Your task to perform on an android device: turn on the 12-hour format for clock Image 0: 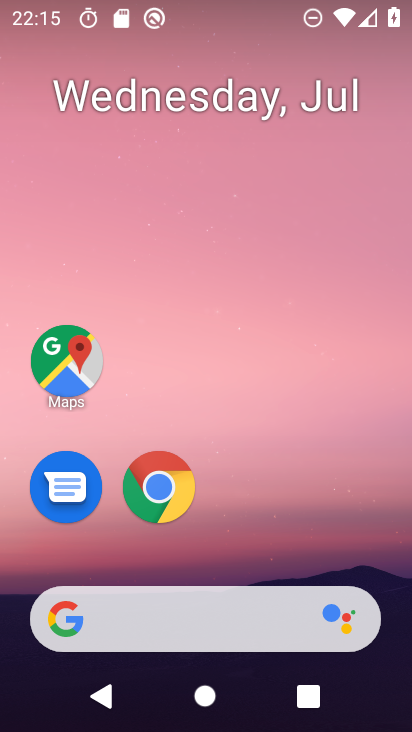
Step 0: drag from (366, 521) to (385, 130)
Your task to perform on an android device: turn on the 12-hour format for clock Image 1: 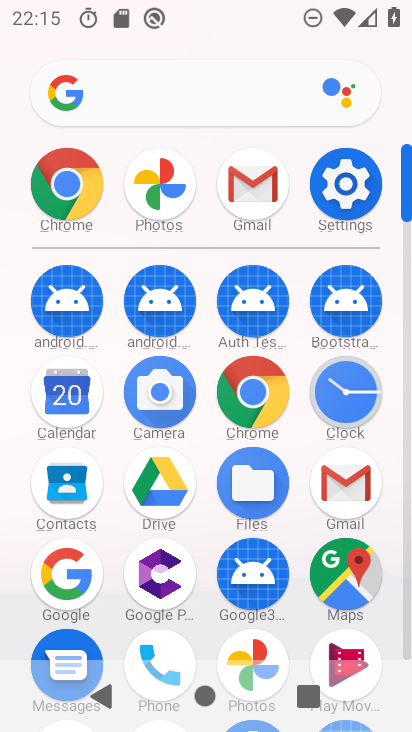
Step 1: click (354, 395)
Your task to perform on an android device: turn on the 12-hour format for clock Image 2: 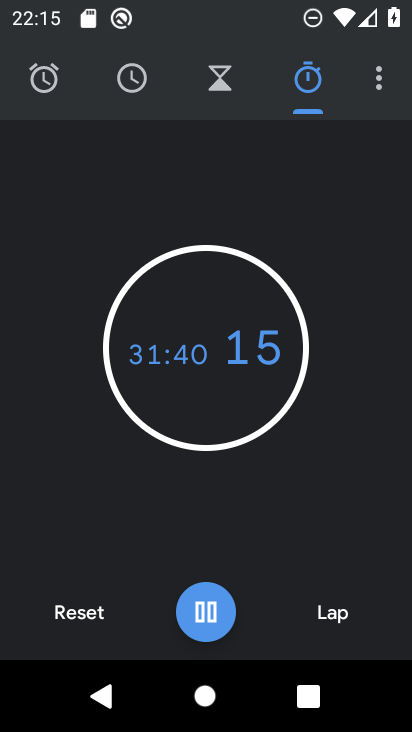
Step 2: click (374, 81)
Your task to perform on an android device: turn on the 12-hour format for clock Image 3: 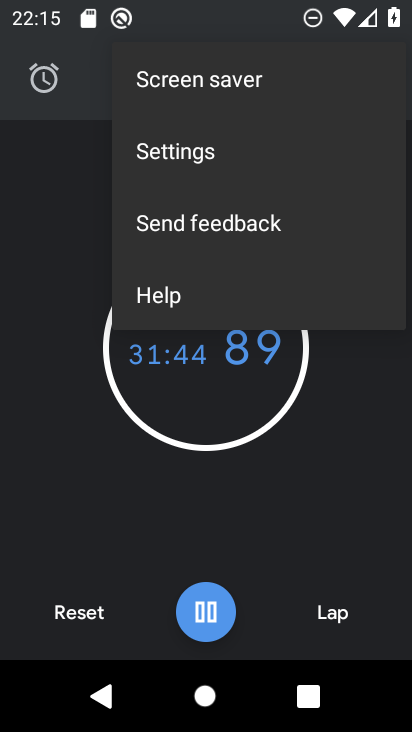
Step 3: click (240, 159)
Your task to perform on an android device: turn on the 12-hour format for clock Image 4: 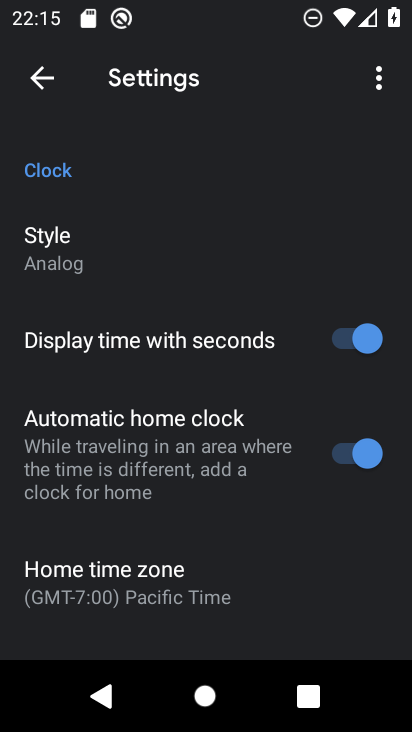
Step 4: drag from (286, 470) to (302, 407)
Your task to perform on an android device: turn on the 12-hour format for clock Image 5: 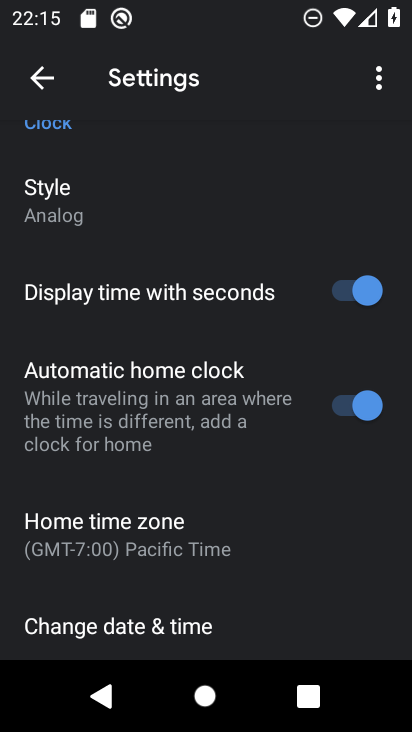
Step 5: drag from (288, 494) to (290, 420)
Your task to perform on an android device: turn on the 12-hour format for clock Image 6: 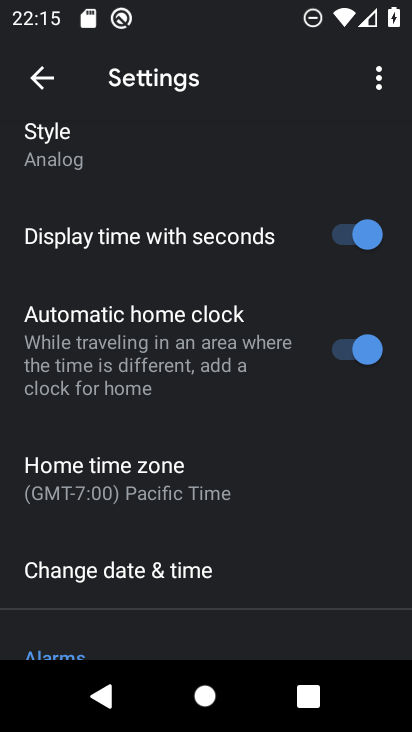
Step 6: drag from (289, 502) to (296, 411)
Your task to perform on an android device: turn on the 12-hour format for clock Image 7: 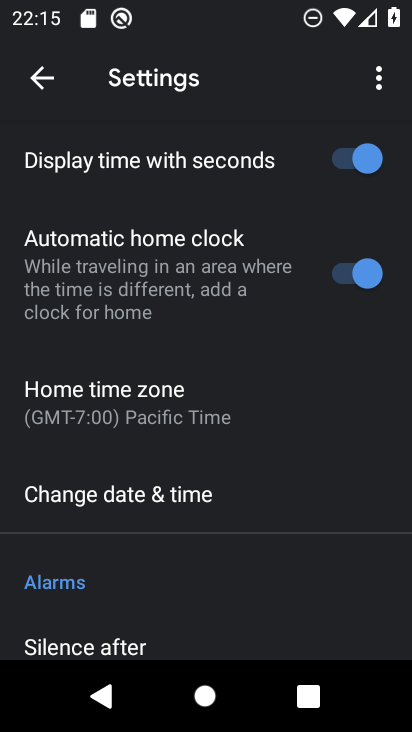
Step 7: drag from (293, 501) to (291, 421)
Your task to perform on an android device: turn on the 12-hour format for clock Image 8: 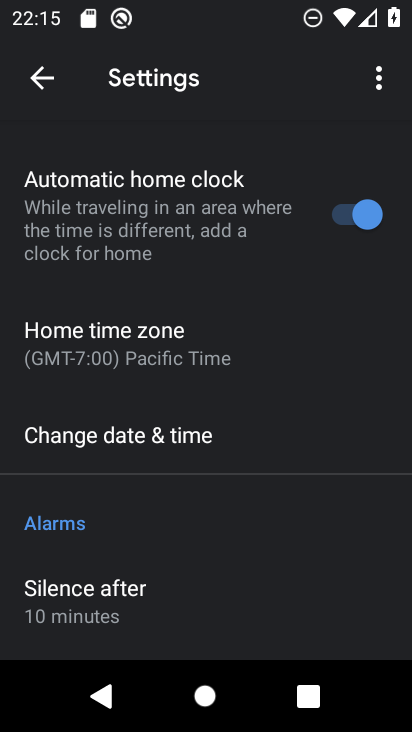
Step 8: drag from (275, 532) to (293, 415)
Your task to perform on an android device: turn on the 12-hour format for clock Image 9: 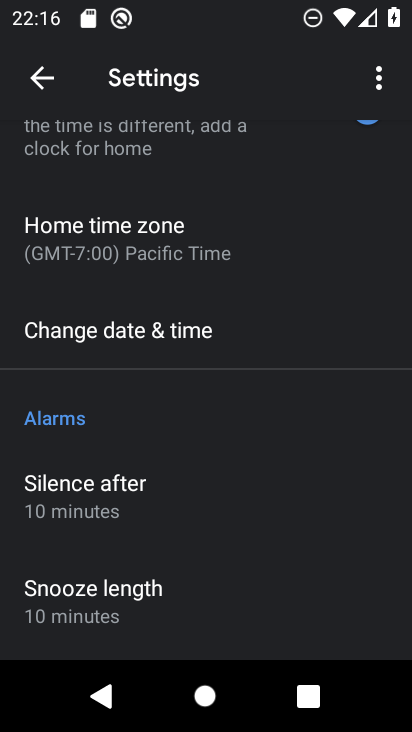
Step 9: drag from (298, 487) to (298, 417)
Your task to perform on an android device: turn on the 12-hour format for clock Image 10: 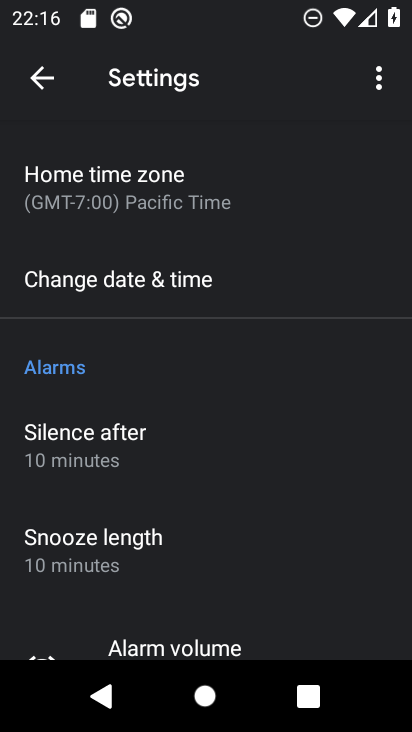
Step 10: click (262, 296)
Your task to perform on an android device: turn on the 12-hour format for clock Image 11: 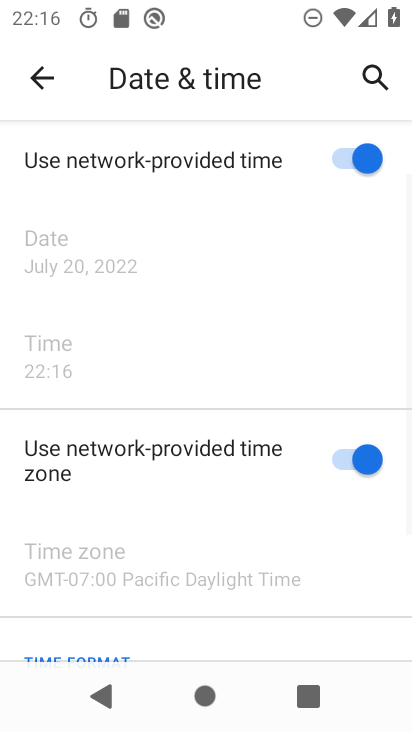
Step 11: drag from (281, 486) to (284, 422)
Your task to perform on an android device: turn on the 12-hour format for clock Image 12: 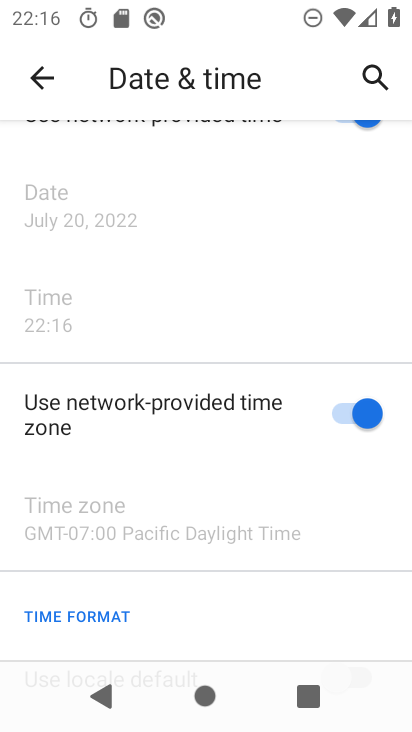
Step 12: drag from (288, 547) to (283, 466)
Your task to perform on an android device: turn on the 12-hour format for clock Image 13: 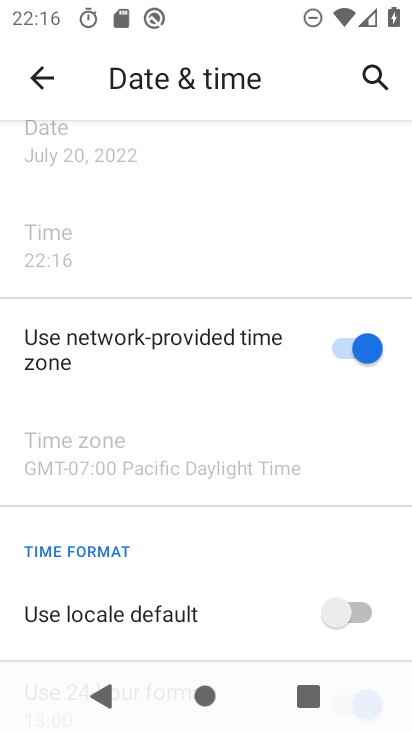
Step 13: drag from (274, 554) to (276, 469)
Your task to perform on an android device: turn on the 12-hour format for clock Image 14: 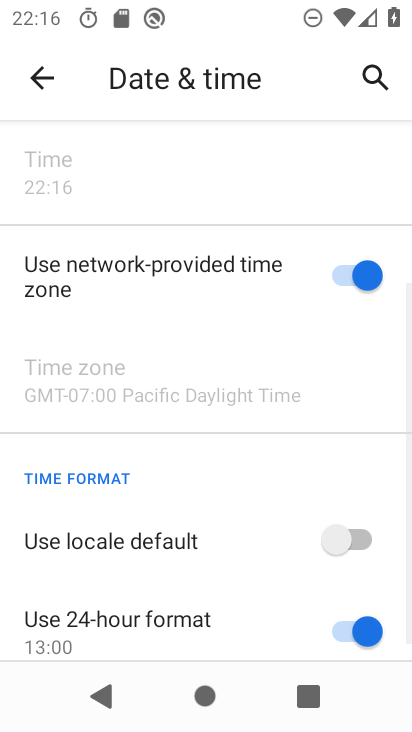
Step 14: drag from (274, 559) to (274, 466)
Your task to perform on an android device: turn on the 12-hour format for clock Image 15: 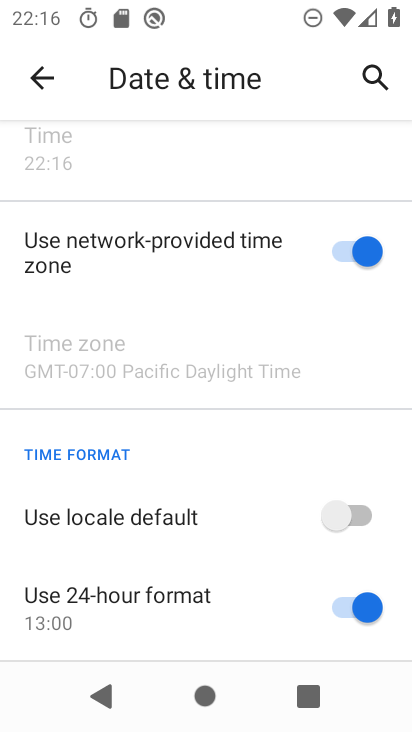
Step 15: click (353, 600)
Your task to perform on an android device: turn on the 12-hour format for clock Image 16: 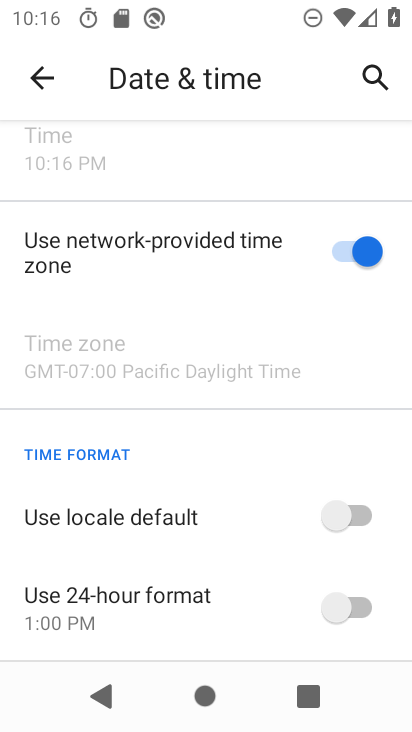
Step 16: task complete